Your task to perform on an android device: check battery use Image 0: 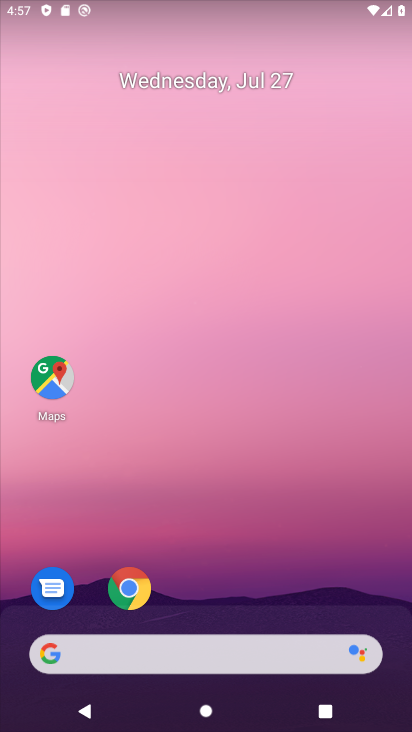
Step 0: drag from (314, 583) to (298, 28)
Your task to perform on an android device: check battery use Image 1: 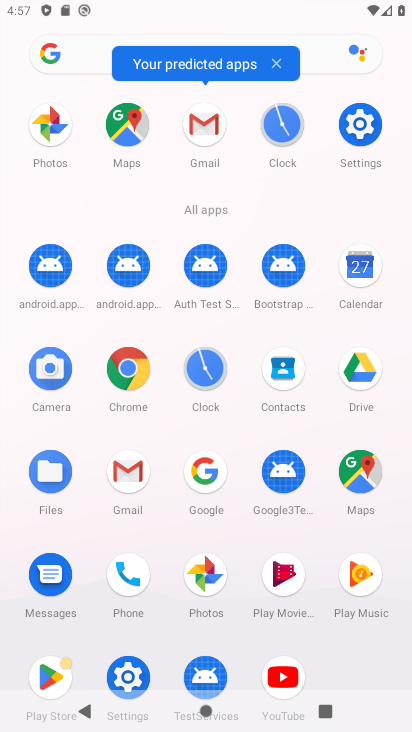
Step 1: click (364, 140)
Your task to perform on an android device: check battery use Image 2: 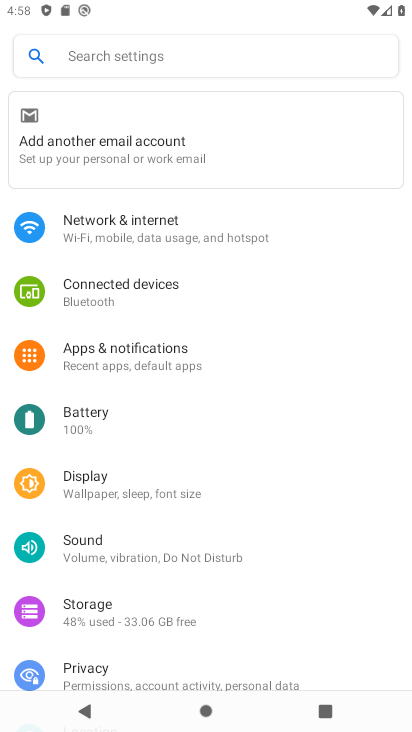
Step 2: click (141, 409)
Your task to perform on an android device: check battery use Image 3: 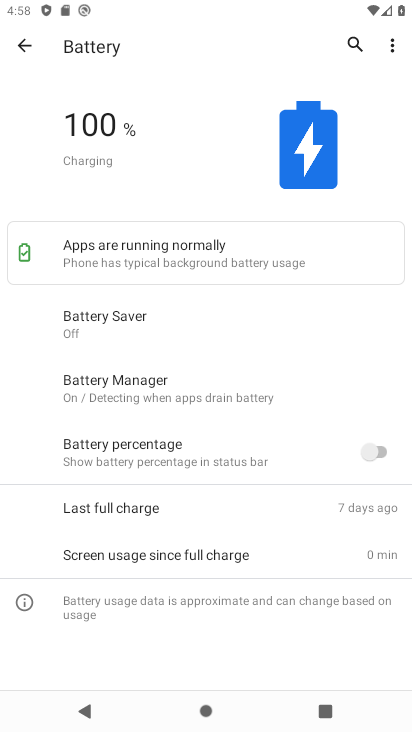
Step 3: click (392, 54)
Your task to perform on an android device: check battery use Image 4: 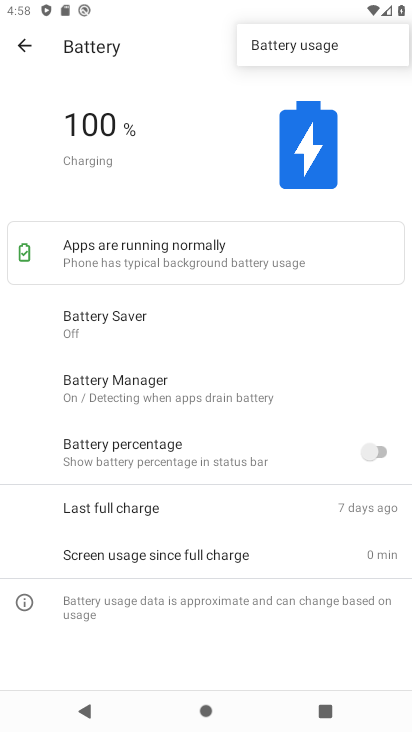
Step 4: click (318, 46)
Your task to perform on an android device: check battery use Image 5: 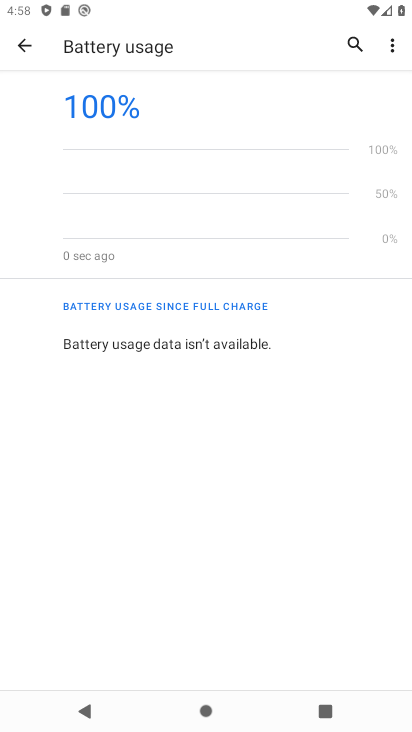
Step 5: task complete